Your task to perform on an android device: Open Youtube and go to the subscriptions tab Image 0: 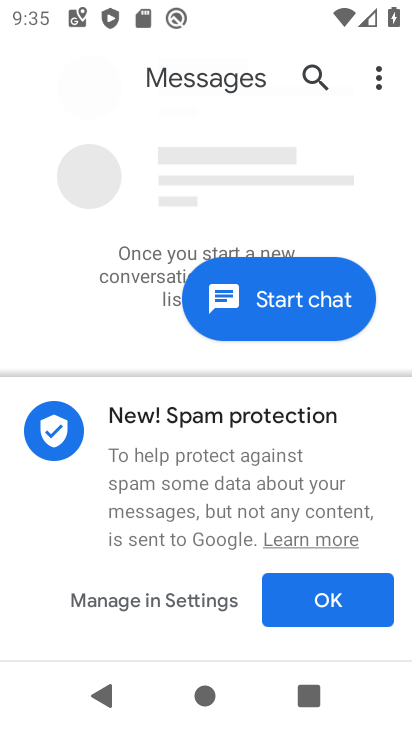
Step 0: press home button
Your task to perform on an android device: Open Youtube and go to the subscriptions tab Image 1: 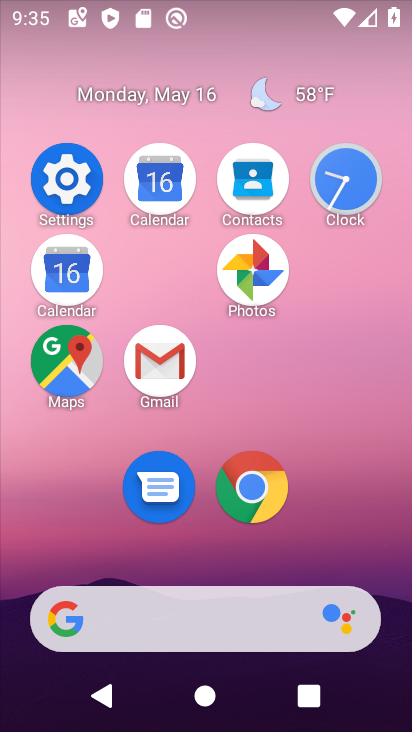
Step 1: drag from (341, 548) to (336, 182)
Your task to perform on an android device: Open Youtube and go to the subscriptions tab Image 2: 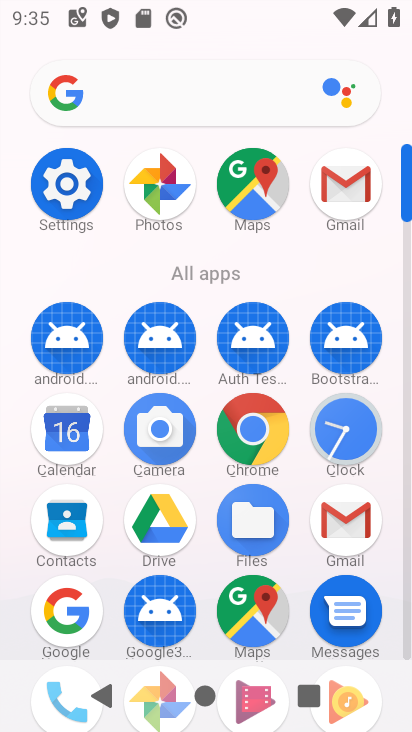
Step 2: drag from (195, 519) to (208, 166)
Your task to perform on an android device: Open Youtube and go to the subscriptions tab Image 3: 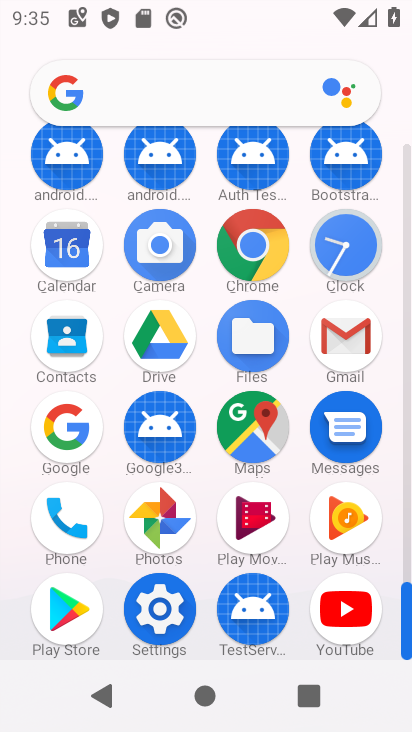
Step 3: drag from (332, 614) to (191, 288)
Your task to perform on an android device: Open Youtube and go to the subscriptions tab Image 4: 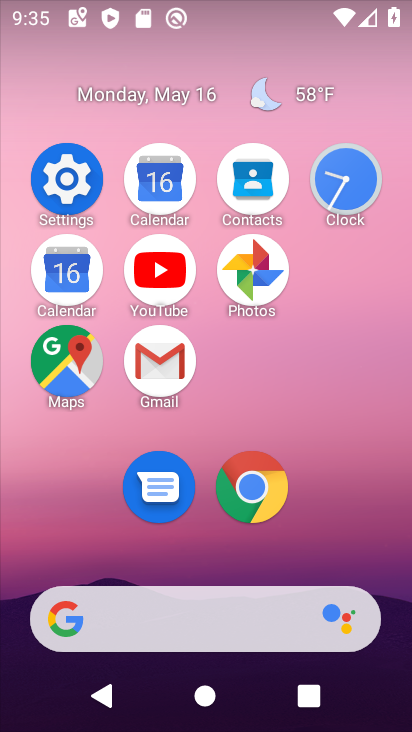
Step 4: click (176, 272)
Your task to perform on an android device: Open Youtube and go to the subscriptions tab Image 5: 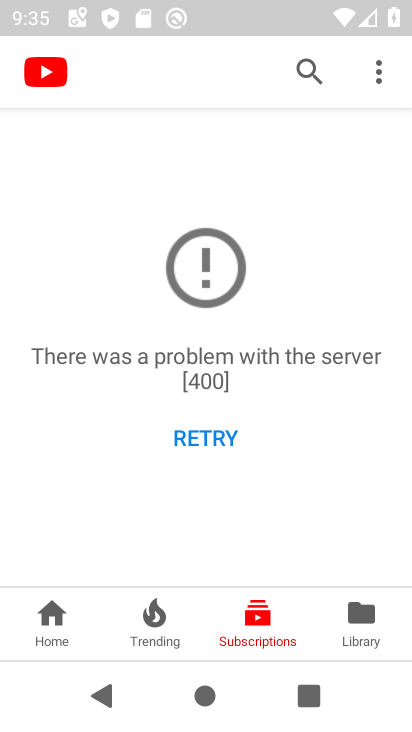
Step 5: task complete